Your task to perform on an android device: Go to Google Image 0: 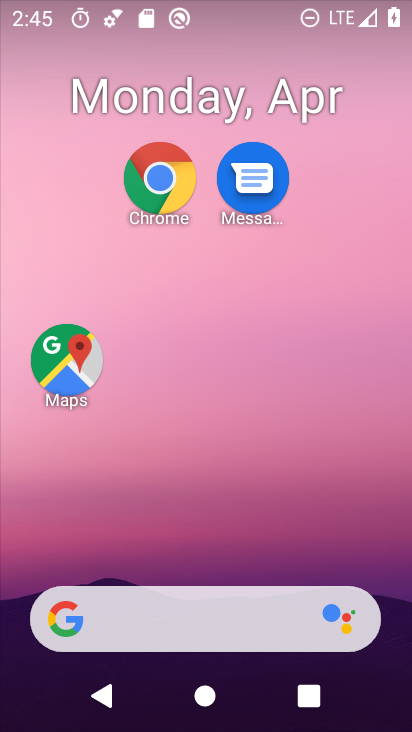
Step 0: drag from (279, 628) to (291, 4)
Your task to perform on an android device: Go to Google Image 1: 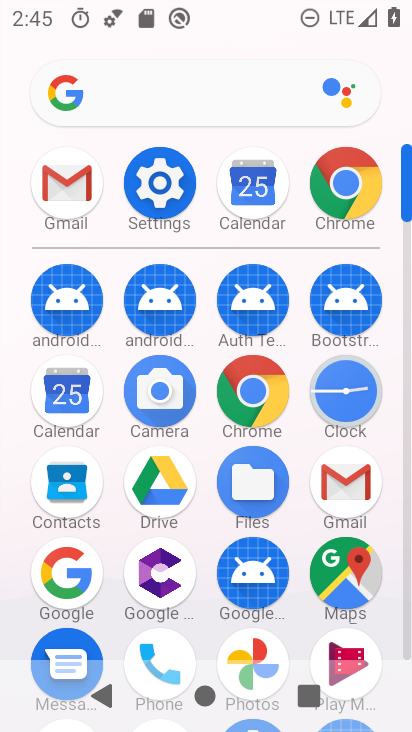
Step 1: click (256, 394)
Your task to perform on an android device: Go to Google Image 2: 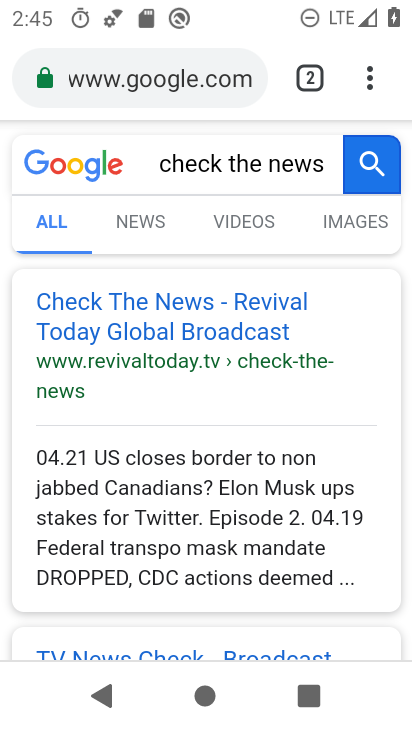
Step 2: task complete